Your task to perform on an android device: Open network settings Image 0: 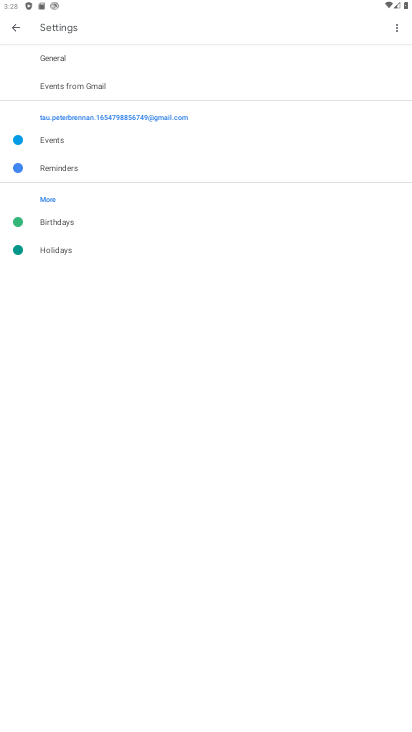
Step 0: press home button
Your task to perform on an android device: Open network settings Image 1: 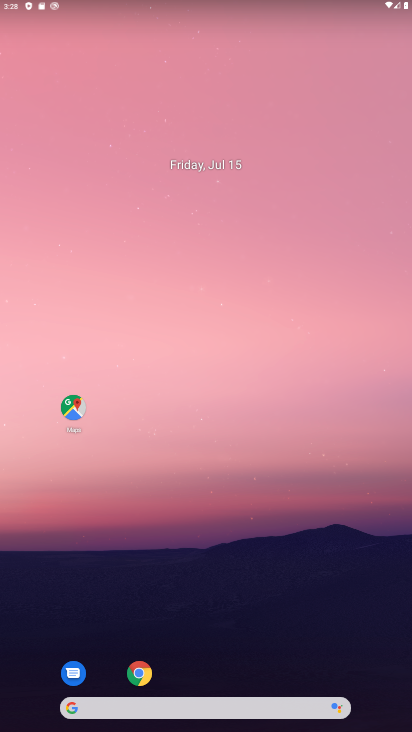
Step 1: drag from (240, 689) to (305, 298)
Your task to perform on an android device: Open network settings Image 2: 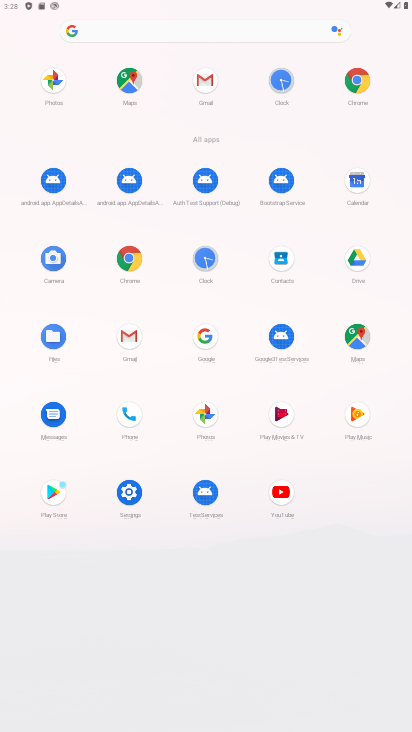
Step 2: click (134, 501)
Your task to perform on an android device: Open network settings Image 3: 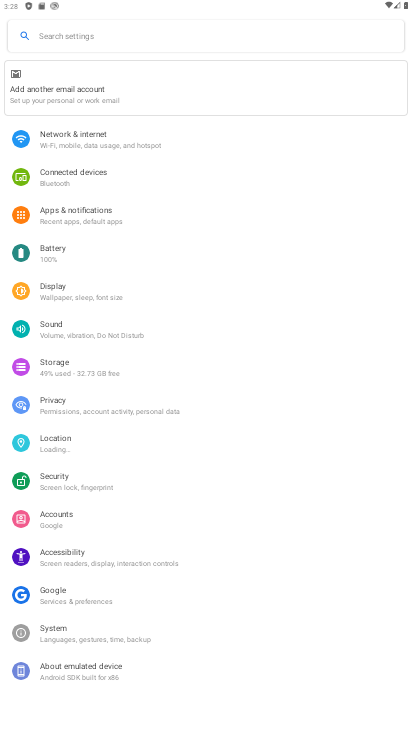
Step 3: click (144, 135)
Your task to perform on an android device: Open network settings Image 4: 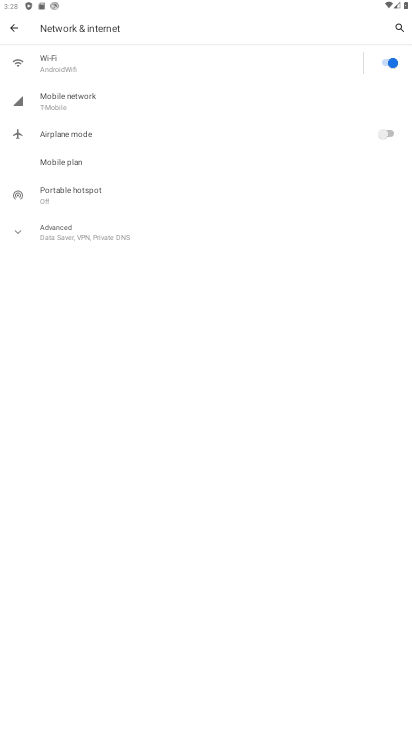
Step 4: click (119, 111)
Your task to perform on an android device: Open network settings Image 5: 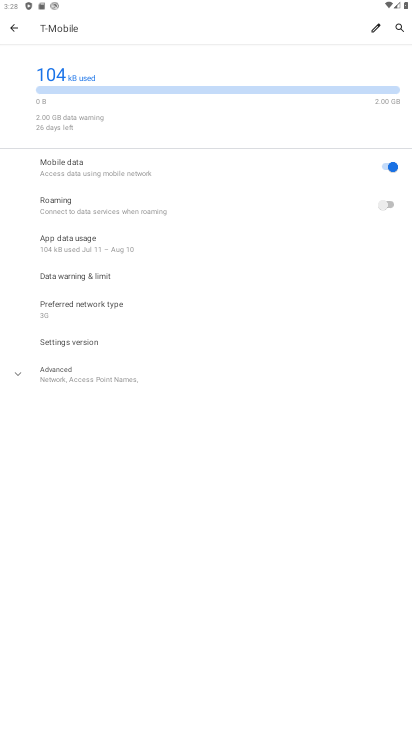
Step 5: task complete